Your task to perform on an android device: Turn off the flashlight Image 0: 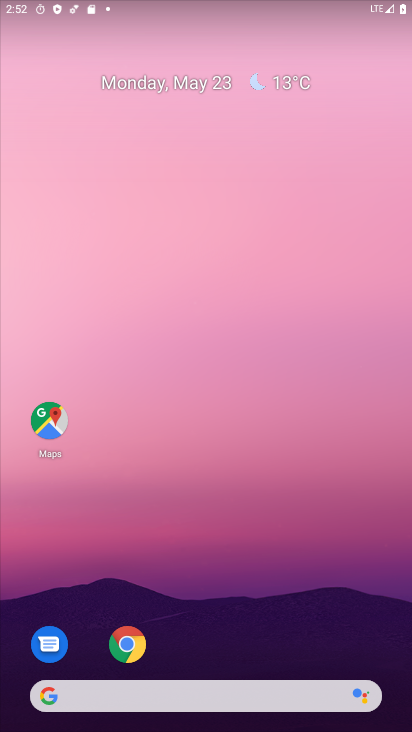
Step 0: drag from (210, 684) to (143, 25)
Your task to perform on an android device: Turn off the flashlight Image 1: 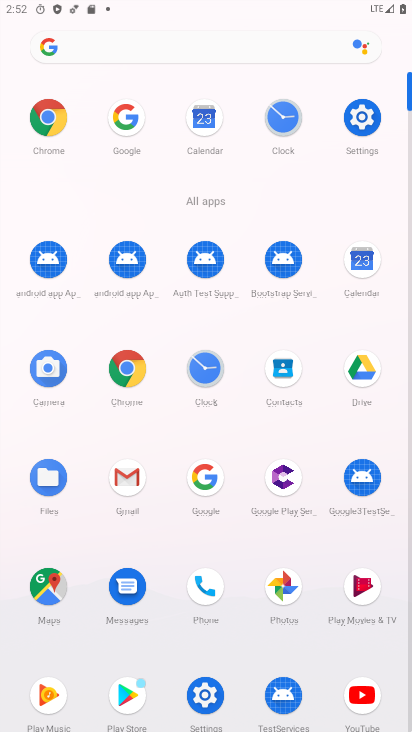
Step 1: click (376, 118)
Your task to perform on an android device: Turn off the flashlight Image 2: 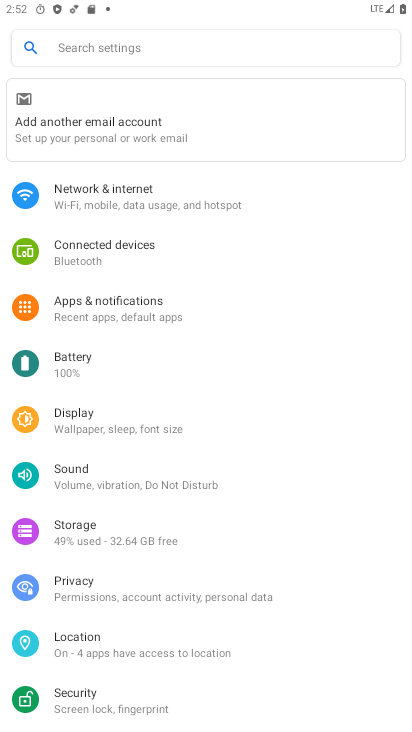
Step 2: click (90, 415)
Your task to perform on an android device: Turn off the flashlight Image 3: 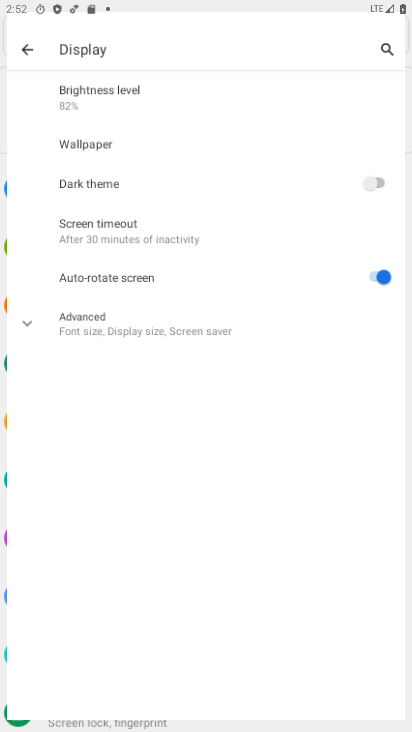
Step 3: task complete